Your task to perform on an android device: Turn on the flashlight Image 0: 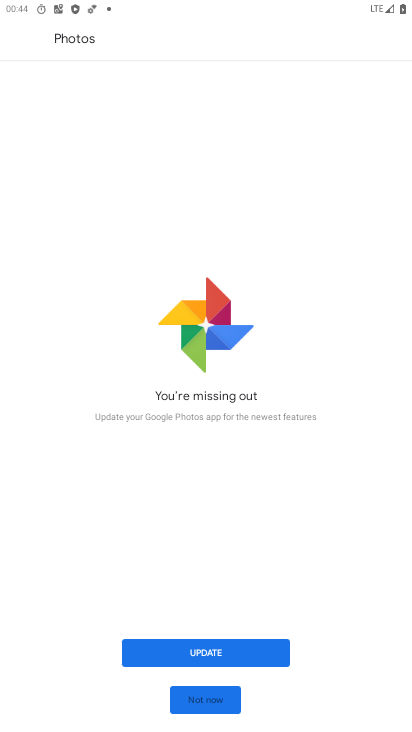
Step 0: press home button
Your task to perform on an android device: Turn on the flashlight Image 1: 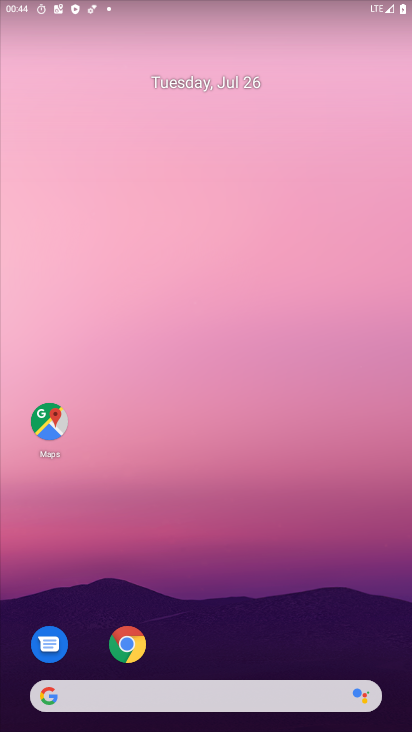
Step 1: task complete